Your task to perform on an android device: allow cookies in the chrome app Image 0: 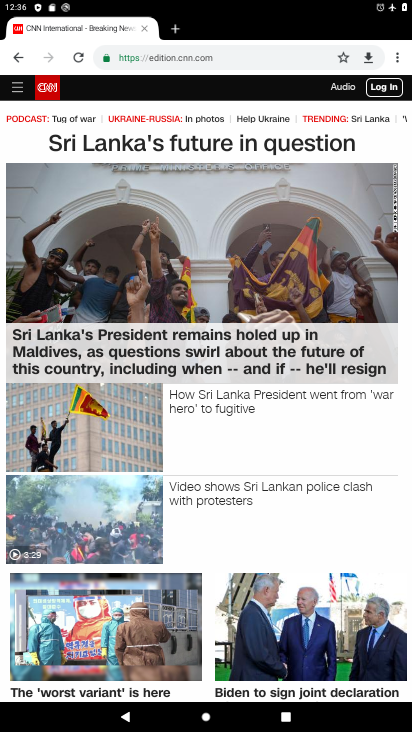
Step 0: press home button
Your task to perform on an android device: allow cookies in the chrome app Image 1: 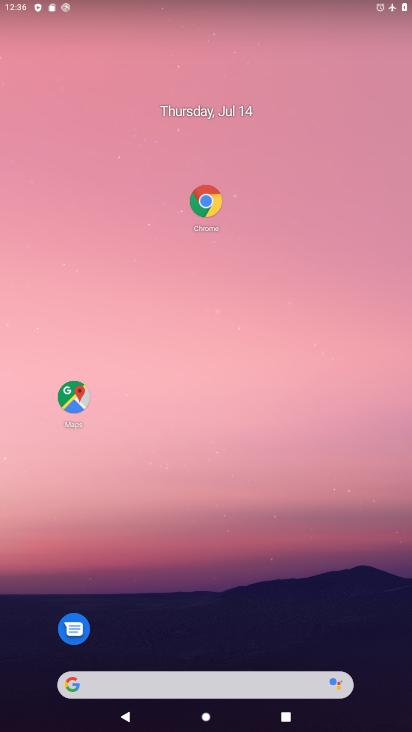
Step 1: drag from (234, 623) to (96, 164)
Your task to perform on an android device: allow cookies in the chrome app Image 2: 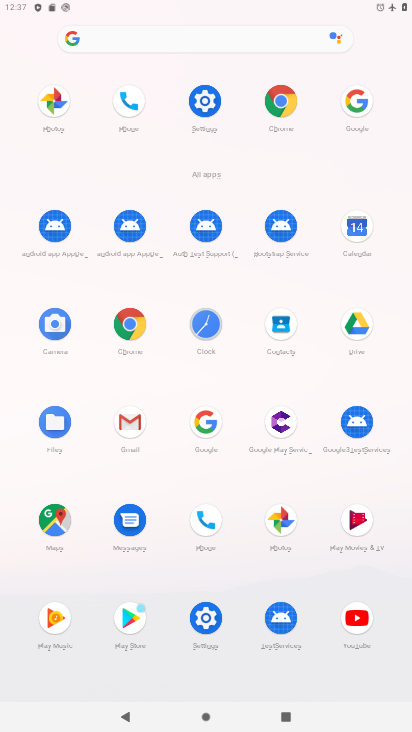
Step 2: click (121, 312)
Your task to perform on an android device: allow cookies in the chrome app Image 3: 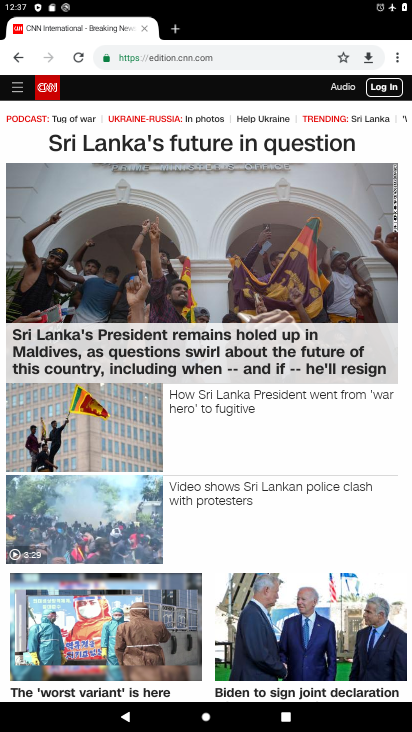
Step 3: click (394, 59)
Your task to perform on an android device: allow cookies in the chrome app Image 4: 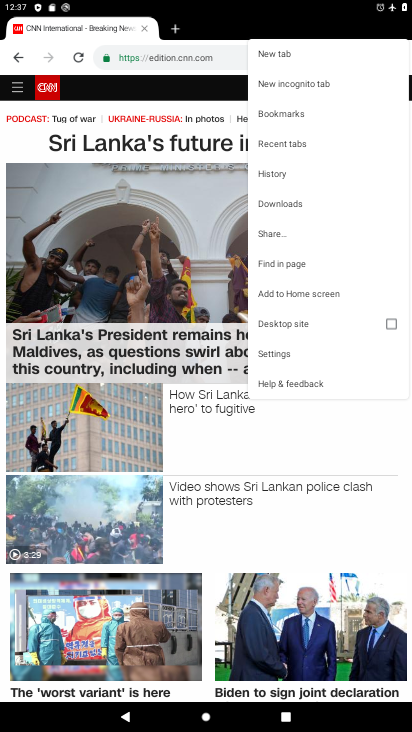
Step 4: click (284, 351)
Your task to perform on an android device: allow cookies in the chrome app Image 5: 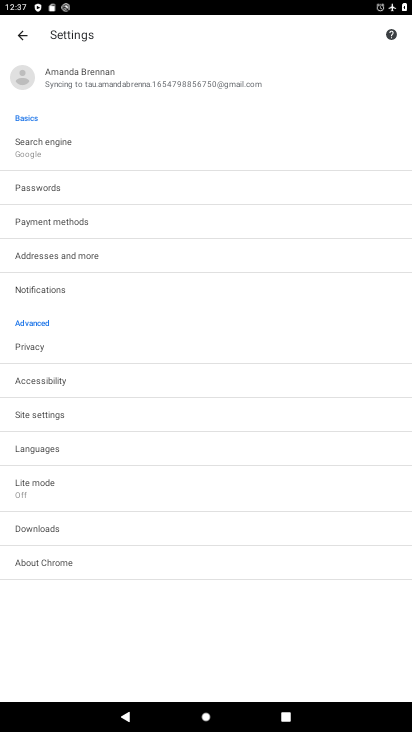
Step 5: click (47, 409)
Your task to perform on an android device: allow cookies in the chrome app Image 6: 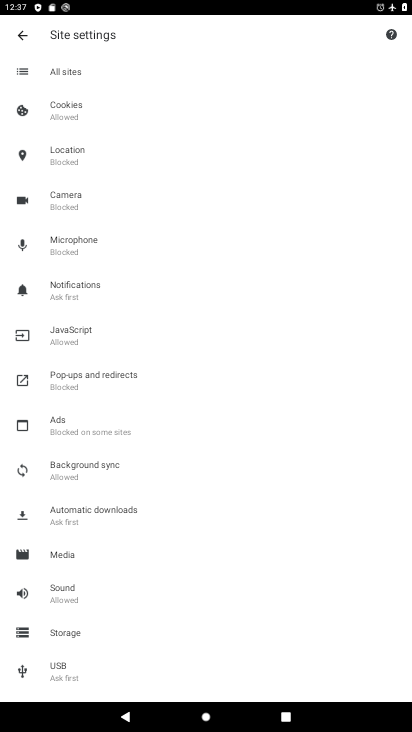
Step 6: click (43, 107)
Your task to perform on an android device: allow cookies in the chrome app Image 7: 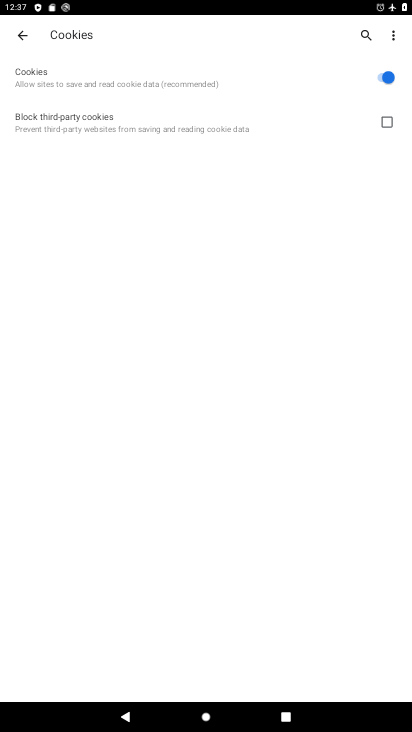
Step 7: task complete